Your task to perform on an android device: Open Chrome and go to the settings page Image 0: 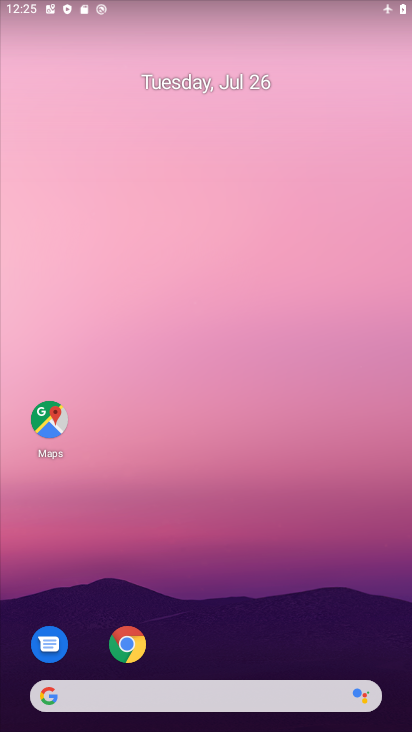
Step 0: drag from (192, 628) to (202, 158)
Your task to perform on an android device: Open Chrome and go to the settings page Image 1: 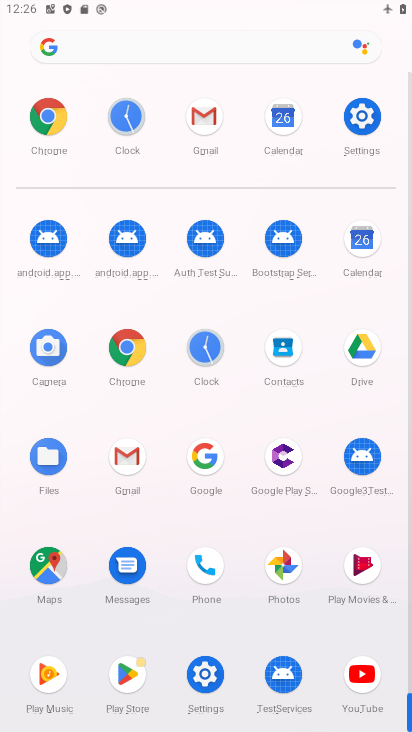
Step 1: click (126, 356)
Your task to perform on an android device: Open Chrome and go to the settings page Image 2: 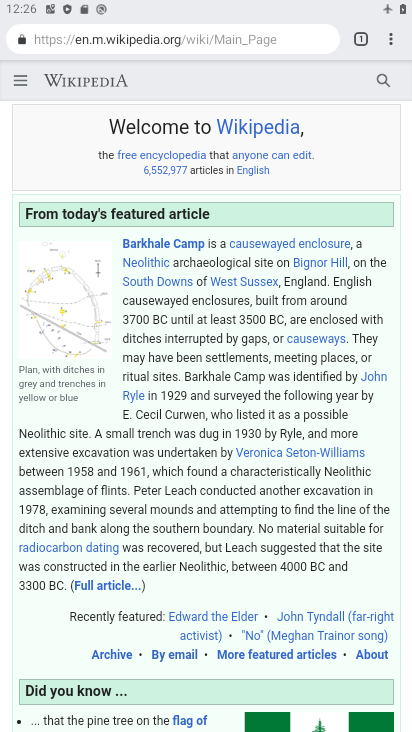
Step 2: click (395, 42)
Your task to perform on an android device: Open Chrome and go to the settings page Image 3: 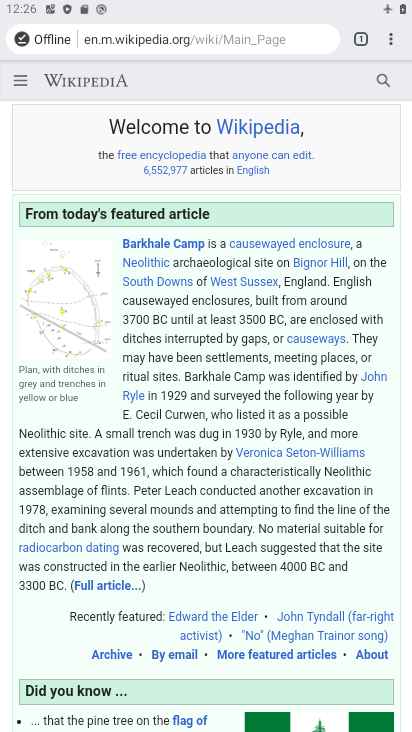
Step 3: click (393, 34)
Your task to perform on an android device: Open Chrome and go to the settings page Image 4: 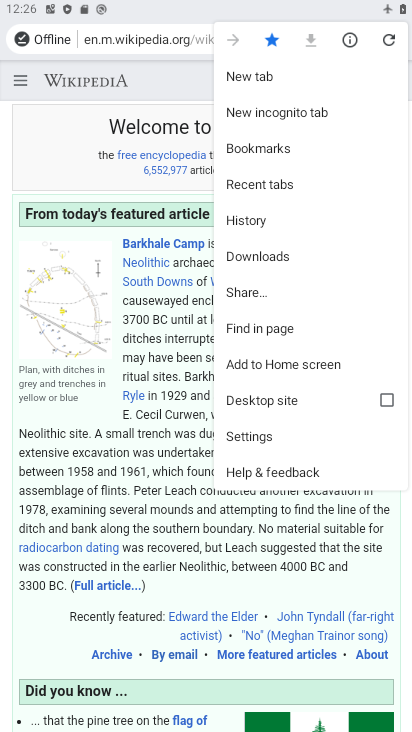
Step 4: click (242, 442)
Your task to perform on an android device: Open Chrome and go to the settings page Image 5: 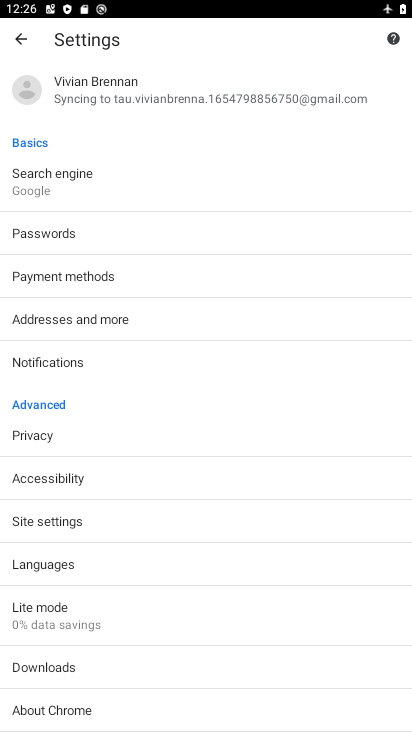
Step 5: task complete